Your task to perform on an android device: set default search engine in the chrome app Image 0: 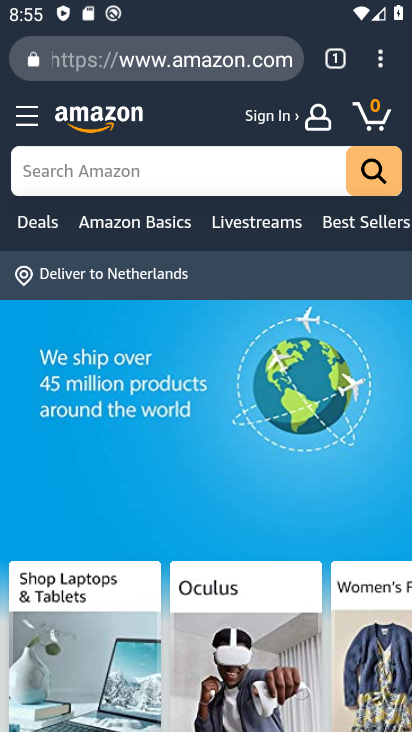
Step 0: press home button
Your task to perform on an android device: set default search engine in the chrome app Image 1: 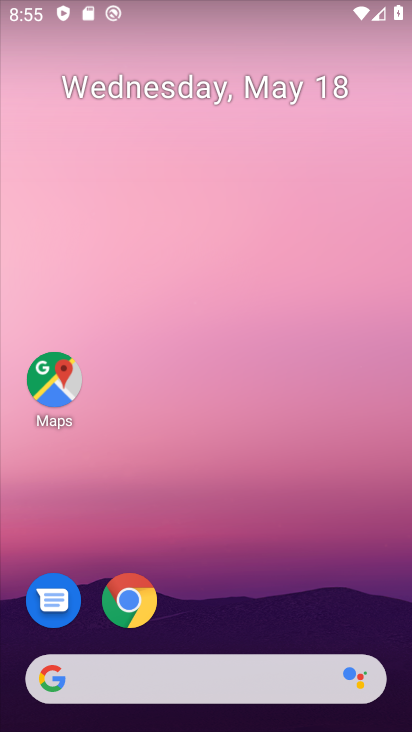
Step 1: click (138, 604)
Your task to perform on an android device: set default search engine in the chrome app Image 2: 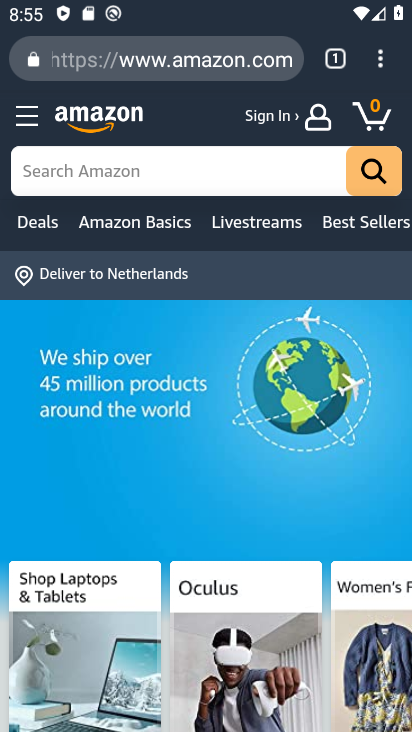
Step 2: click (379, 59)
Your task to perform on an android device: set default search engine in the chrome app Image 3: 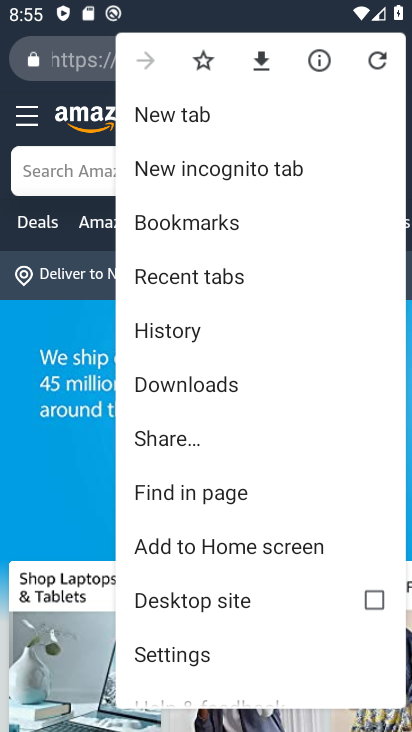
Step 3: click (178, 654)
Your task to perform on an android device: set default search engine in the chrome app Image 4: 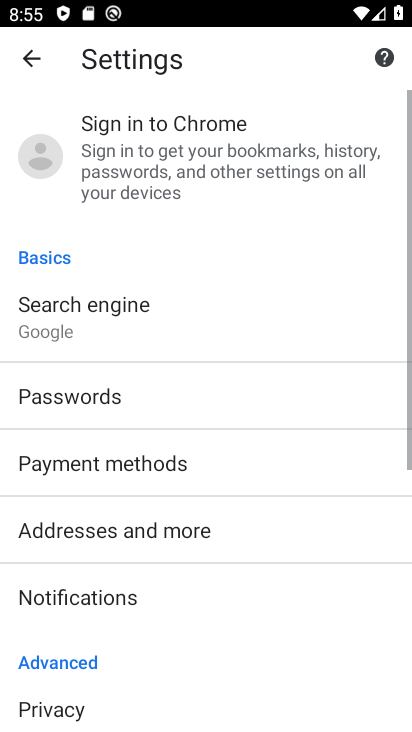
Step 4: click (83, 330)
Your task to perform on an android device: set default search engine in the chrome app Image 5: 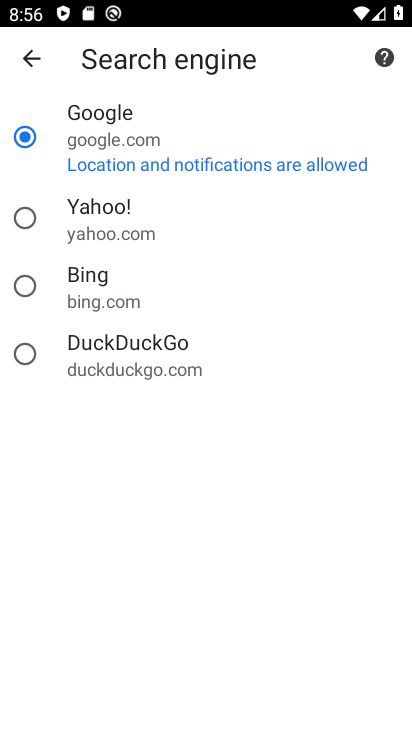
Step 5: task complete